Your task to perform on an android device: open wifi settings Image 0: 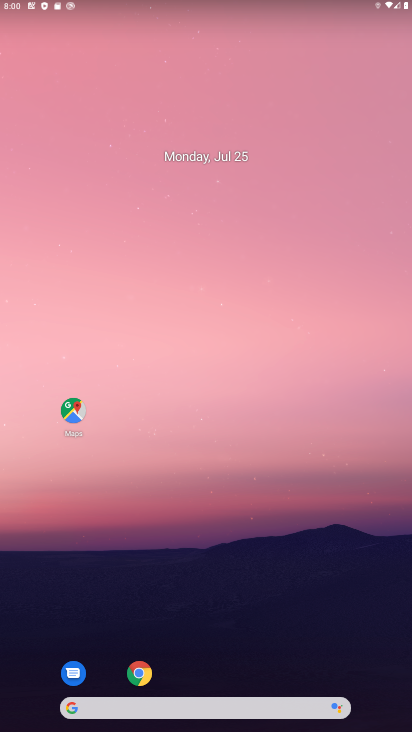
Step 0: drag from (218, 704) to (403, 438)
Your task to perform on an android device: open wifi settings Image 1: 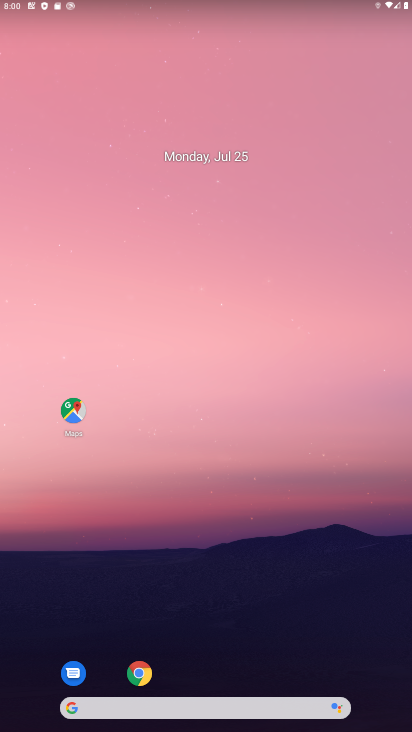
Step 1: click (208, 512)
Your task to perform on an android device: open wifi settings Image 2: 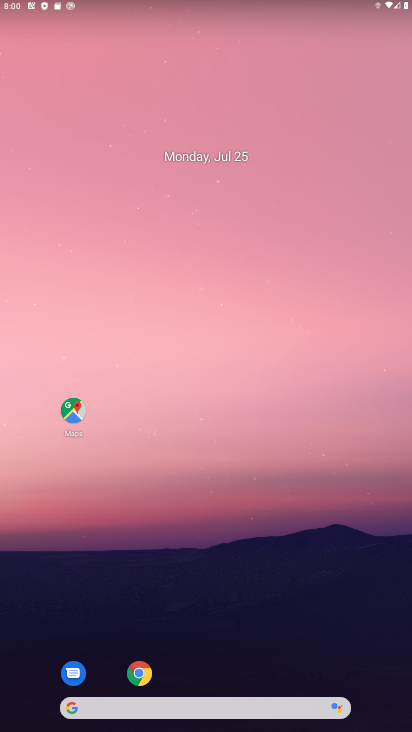
Step 2: drag from (222, 648) to (261, 436)
Your task to perform on an android device: open wifi settings Image 3: 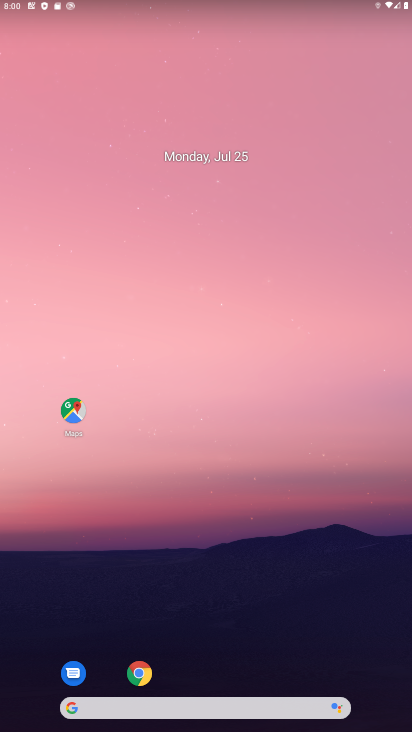
Step 3: drag from (228, 677) to (224, 108)
Your task to perform on an android device: open wifi settings Image 4: 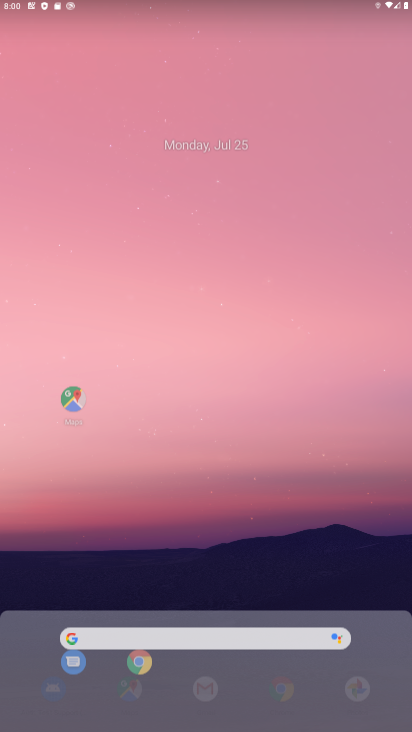
Step 4: drag from (270, 379) to (235, 136)
Your task to perform on an android device: open wifi settings Image 5: 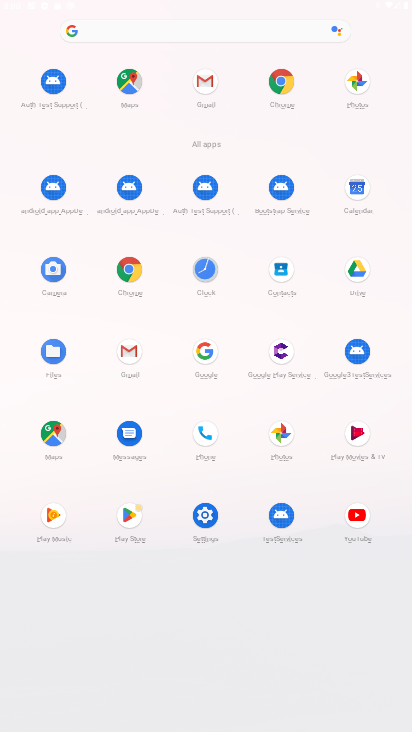
Step 5: drag from (233, 471) to (225, 86)
Your task to perform on an android device: open wifi settings Image 6: 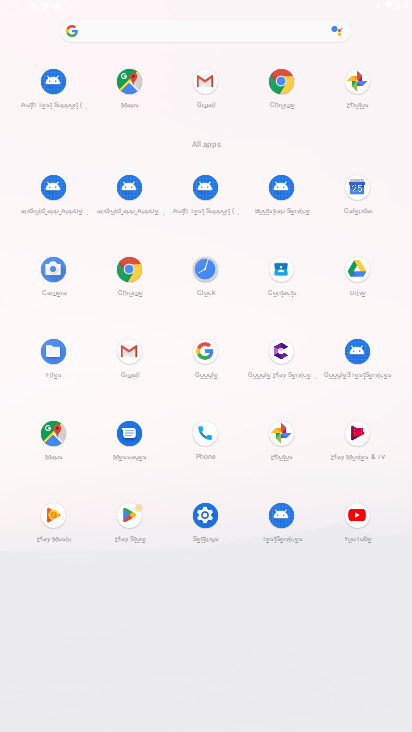
Step 6: click (205, 525)
Your task to perform on an android device: open wifi settings Image 7: 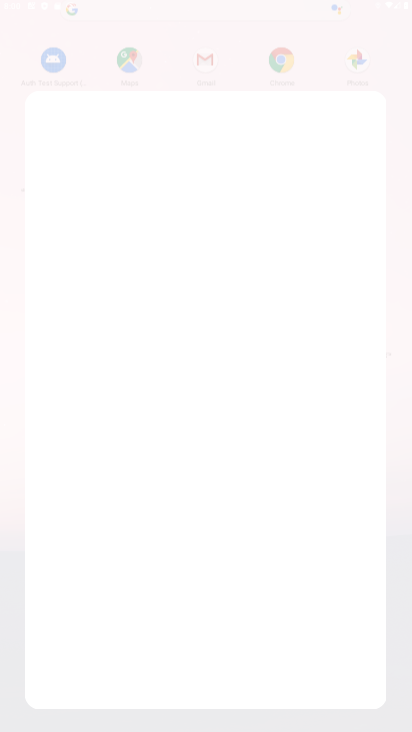
Step 7: click (205, 525)
Your task to perform on an android device: open wifi settings Image 8: 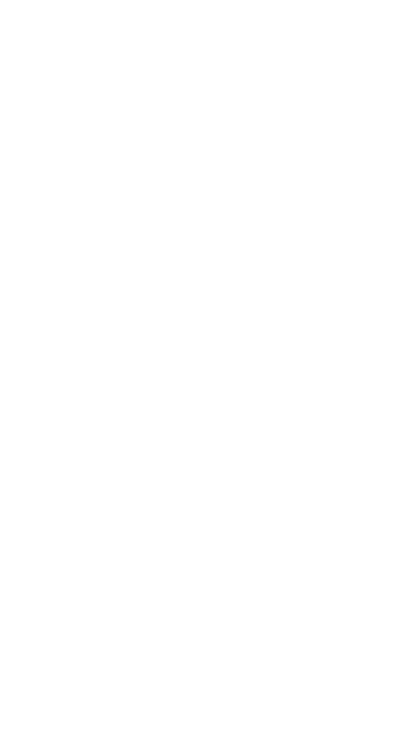
Step 8: click (205, 527)
Your task to perform on an android device: open wifi settings Image 9: 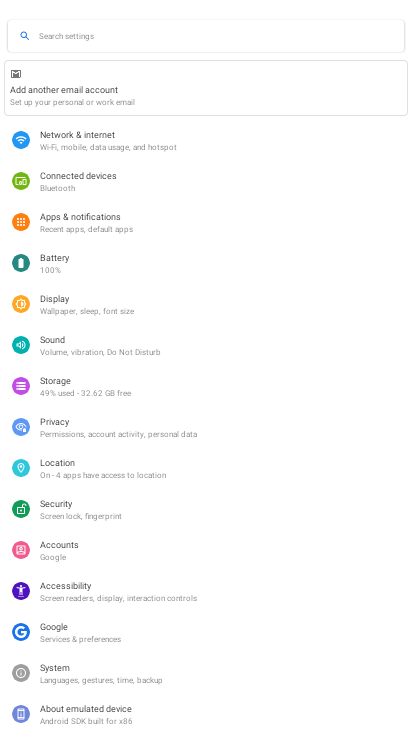
Step 9: click (87, 122)
Your task to perform on an android device: open wifi settings Image 10: 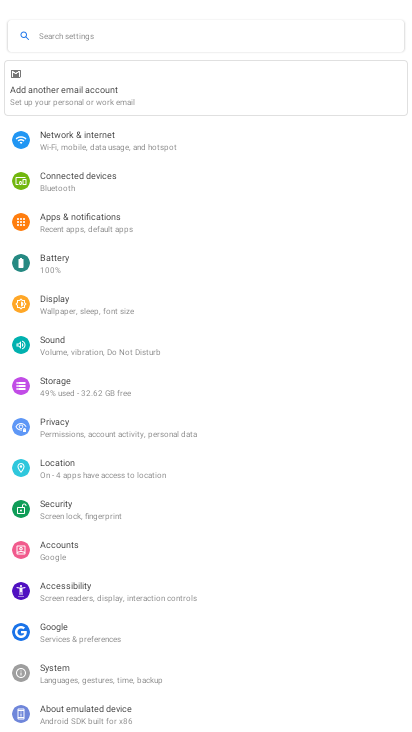
Step 10: click (60, 134)
Your task to perform on an android device: open wifi settings Image 11: 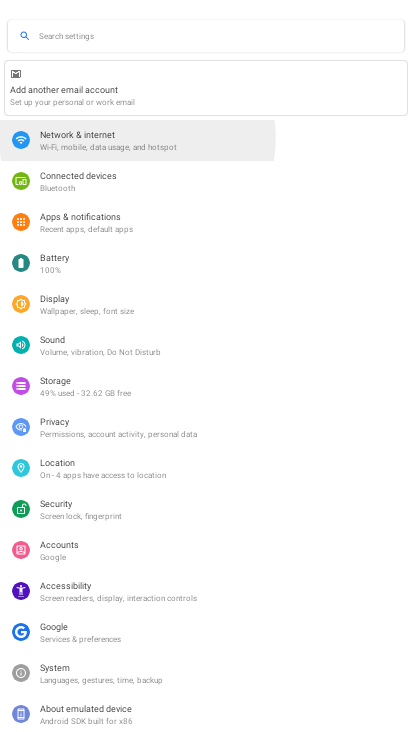
Step 11: click (71, 139)
Your task to perform on an android device: open wifi settings Image 12: 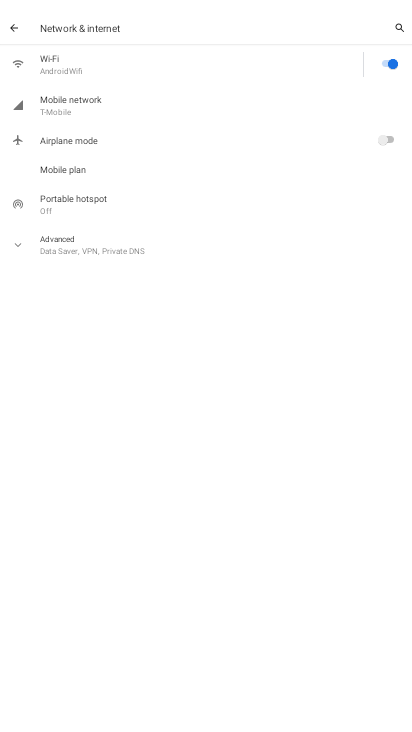
Step 12: click (75, 138)
Your task to perform on an android device: open wifi settings Image 13: 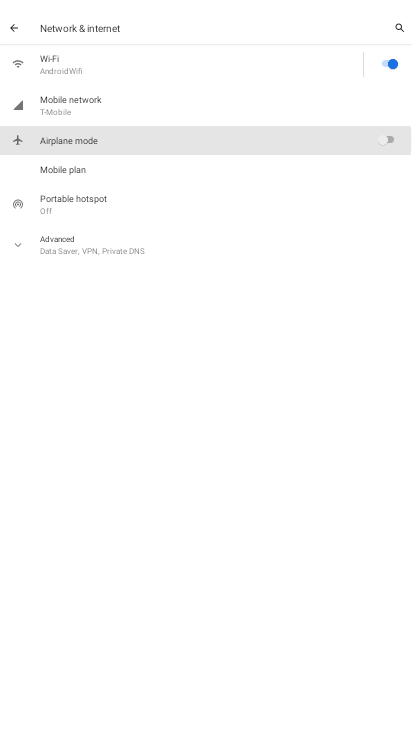
Step 13: click (78, 139)
Your task to perform on an android device: open wifi settings Image 14: 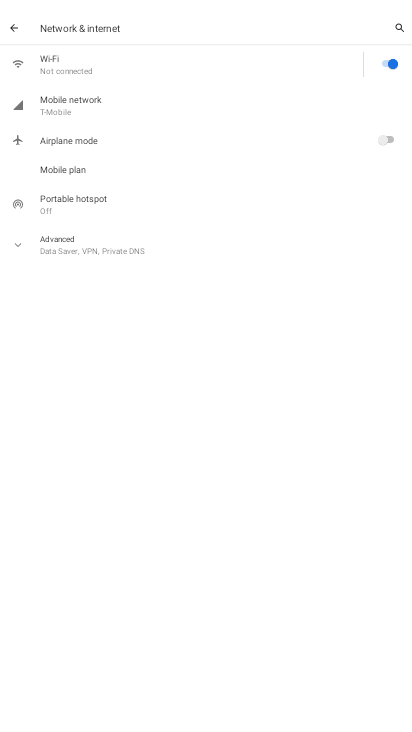
Step 14: task complete